Your task to perform on an android device: add a label to a message in the gmail app Image 0: 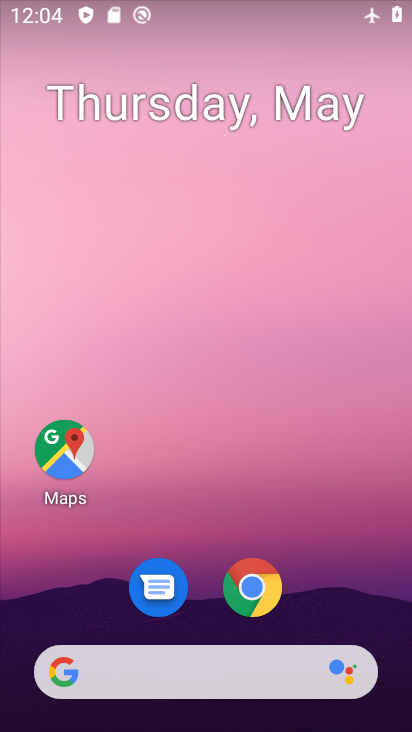
Step 0: drag from (208, 629) to (230, 14)
Your task to perform on an android device: add a label to a message in the gmail app Image 1: 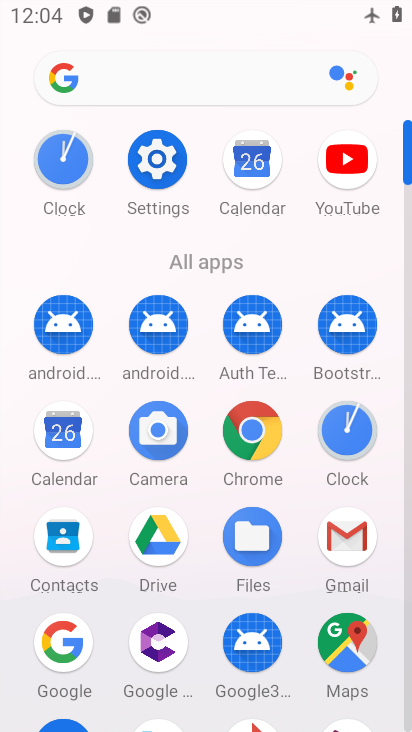
Step 1: click (358, 537)
Your task to perform on an android device: add a label to a message in the gmail app Image 2: 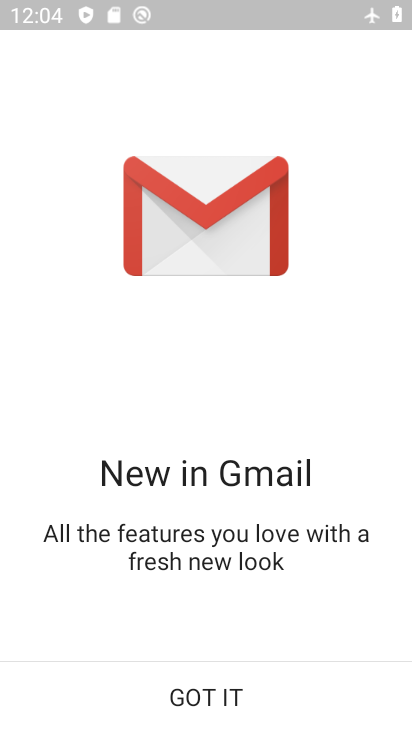
Step 2: click (313, 717)
Your task to perform on an android device: add a label to a message in the gmail app Image 3: 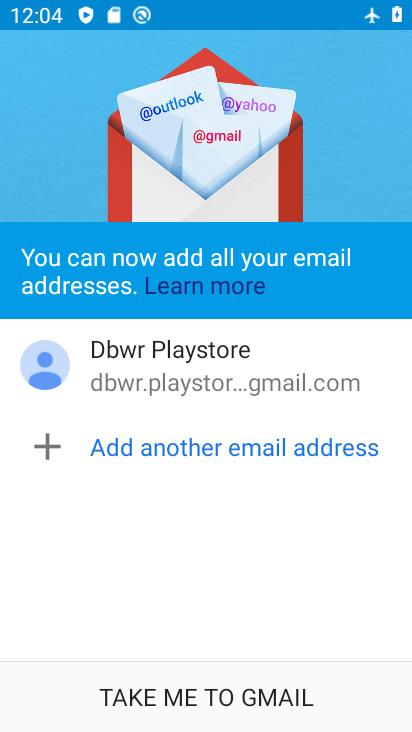
Step 3: click (277, 723)
Your task to perform on an android device: add a label to a message in the gmail app Image 4: 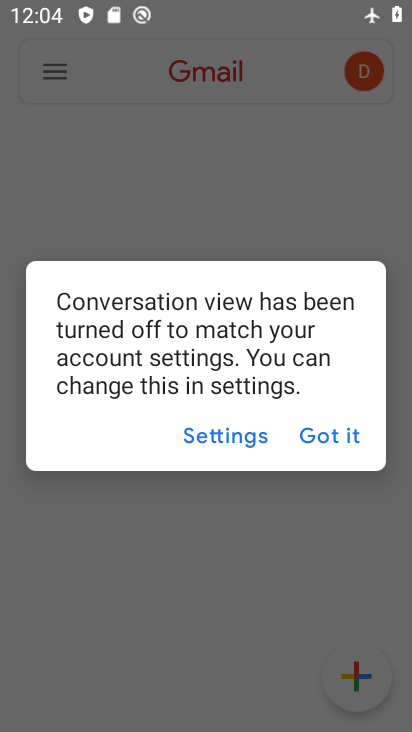
Step 4: click (360, 426)
Your task to perform on an android device: add a label to a message in the gmail app Image 5: 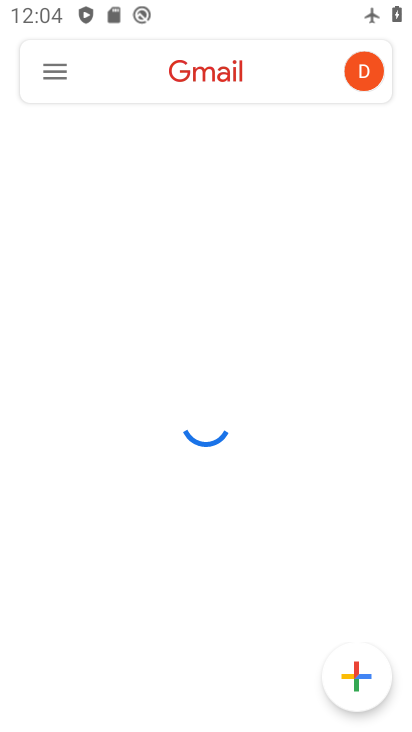
Step 5: task complete